Your task to perform on an android device: Open battery settings Image 0: 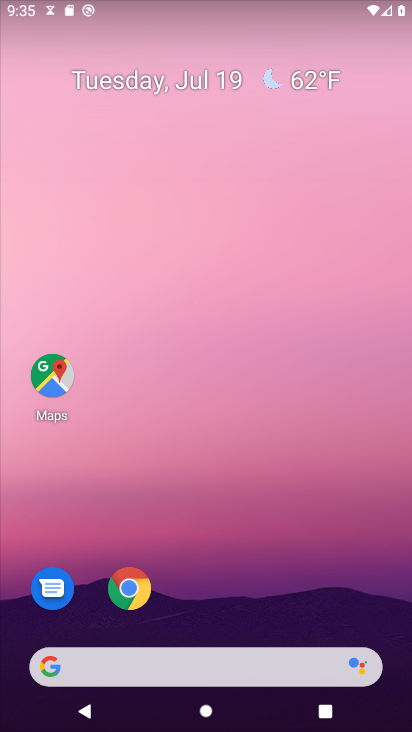
Step 0: drag from (190, 528) to (216, 15)
Your task to perform on an android device: Open battery settings Image 1: 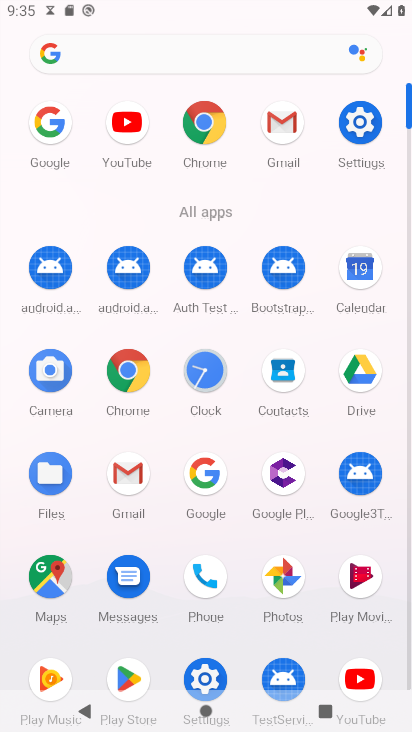
Step 1: click (359, 123)
Your task to perform on an android device: Open battery settings Image 2: 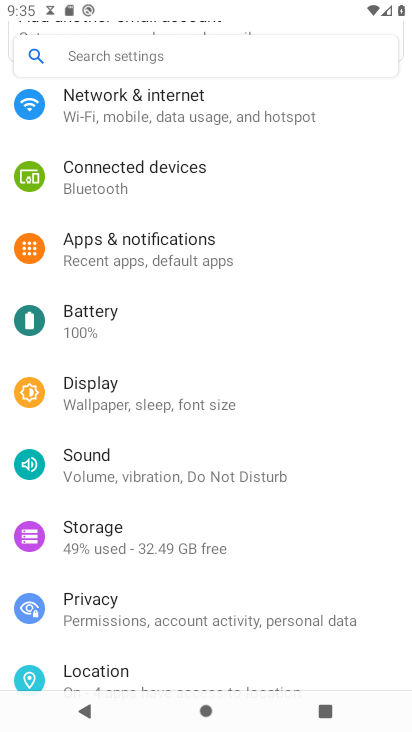
Step 2: click (112, 326)
Your task to perform on an android device: Open battery settings Image 3: 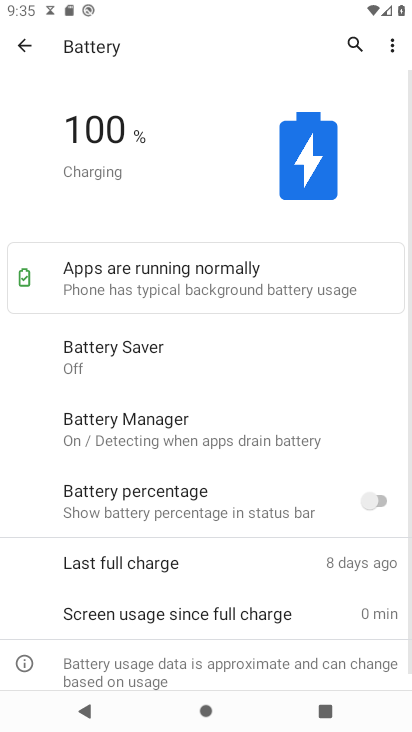
Step 3: task complete